Your task to perform on an android device: open app "HBO Max: Stream TV & Movies" (install if not already installed) Image 0: 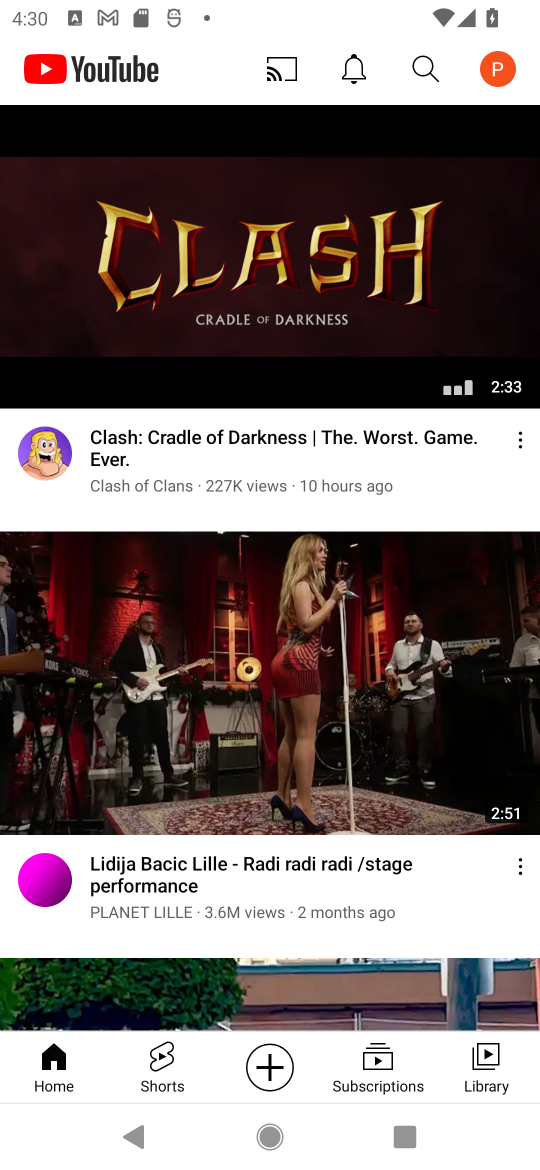
Step 0: press home button
Your task to perform on an android device: open app "HBO Max: Stream TV & Movies" (install if not already installed) Image 1: 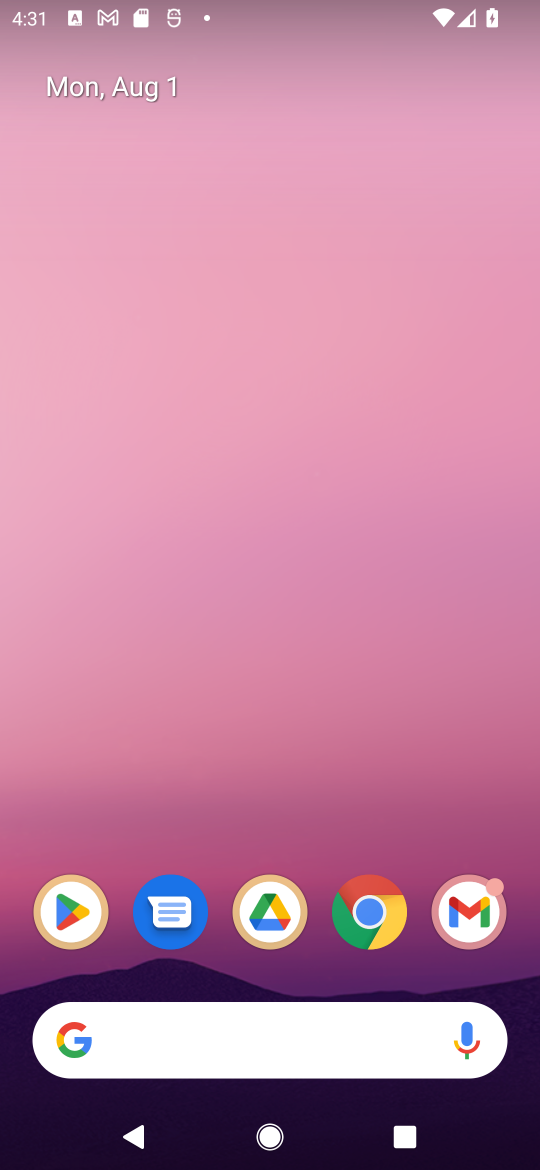
Step 1: click (79, 920)
Your task to perform on an android device: open app "HBO Max: Stream TV & Movies" (install if not already installed) Image 2: 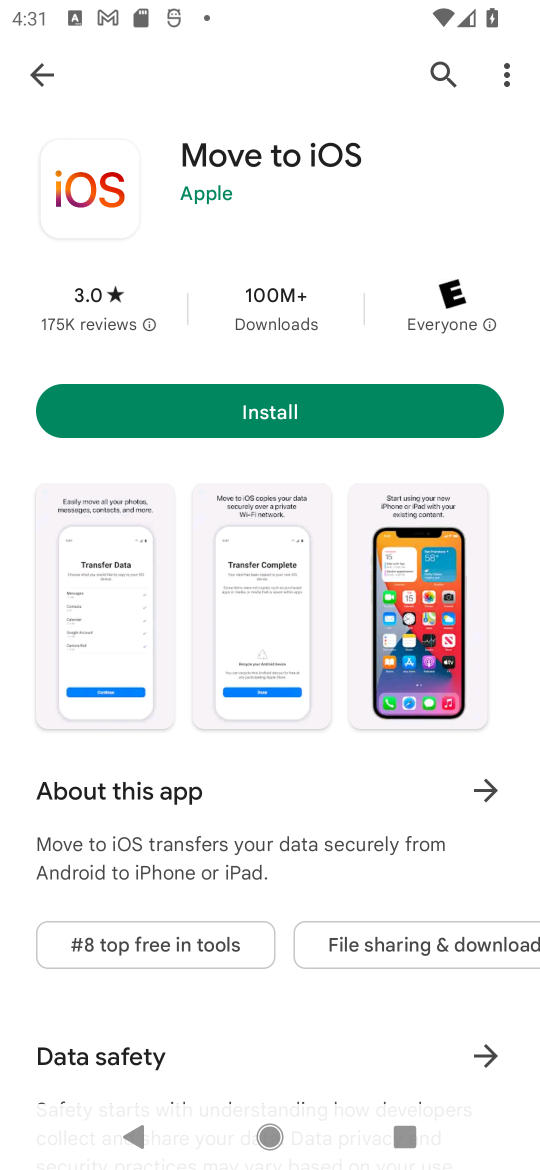
Step 2: click (429, 78)
Your task to perform on an android device: open app "HBO Max: Stream TV & Movies" (install if not already installed) Image 3: 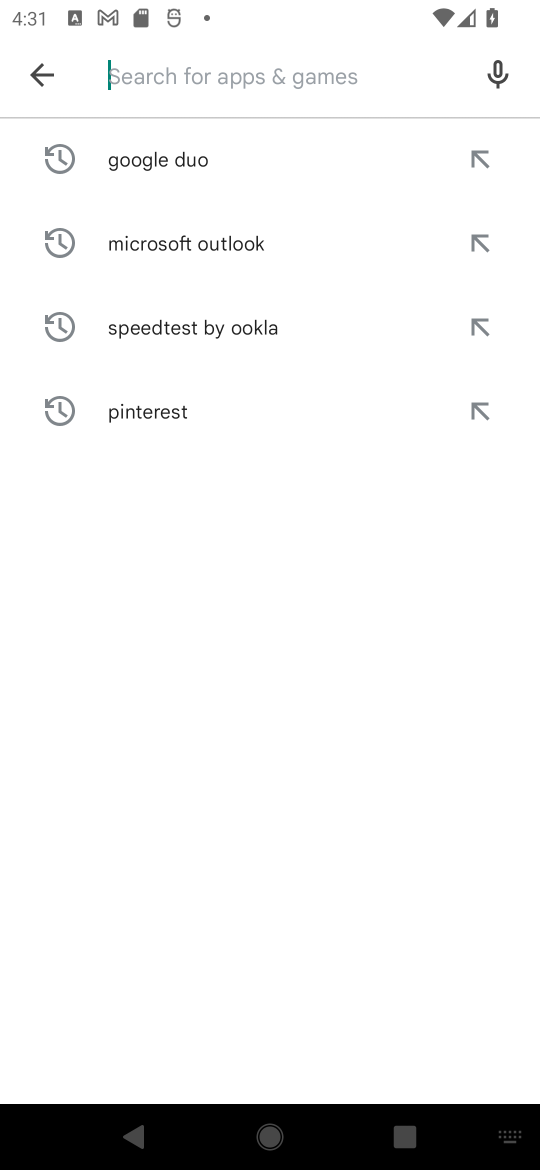
Step 3: type "HBO Max: Stream TV & Movies"
Your task to perform on an android device: open app "HBO Max: Stream TV & Movies" (install if not already installed) Image 4: 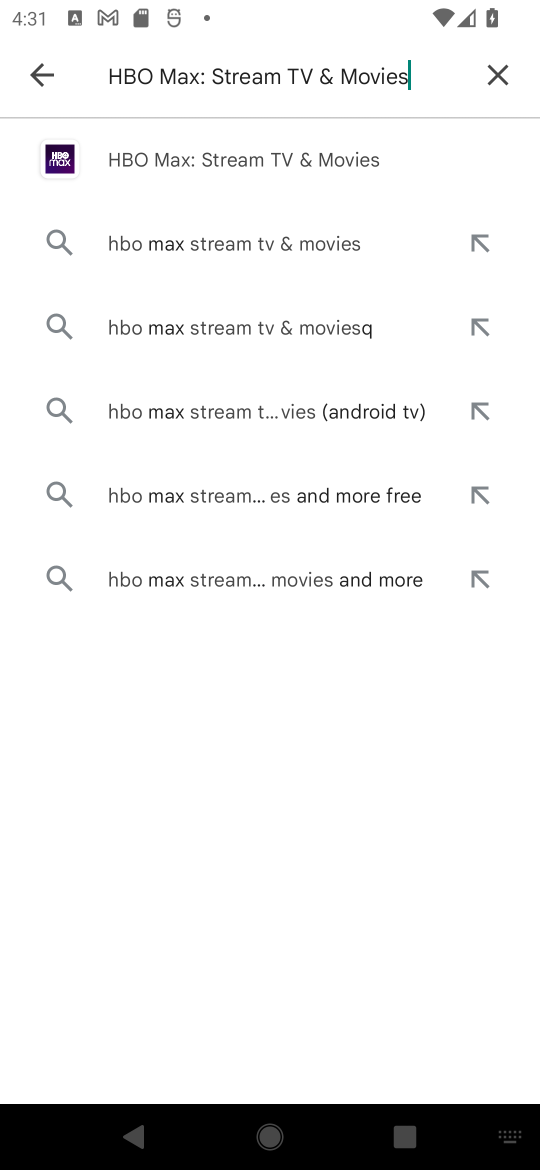
Step 4: click (178, 165)
Your task to perform on an android device: open app "HBO Max: Stream TV & Movies" (install if not already installed) Image 5: 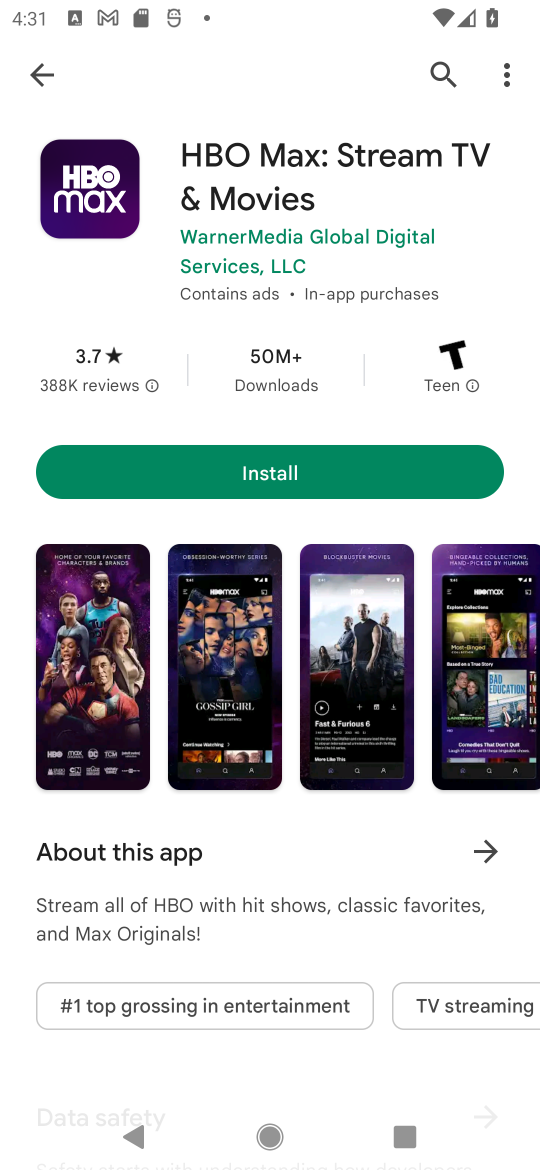
Step 5: click (247, 459)
Your task to perform on an android device: open app "HBO Max: Stream TV & Movies" (install if not already installed) Image 6: 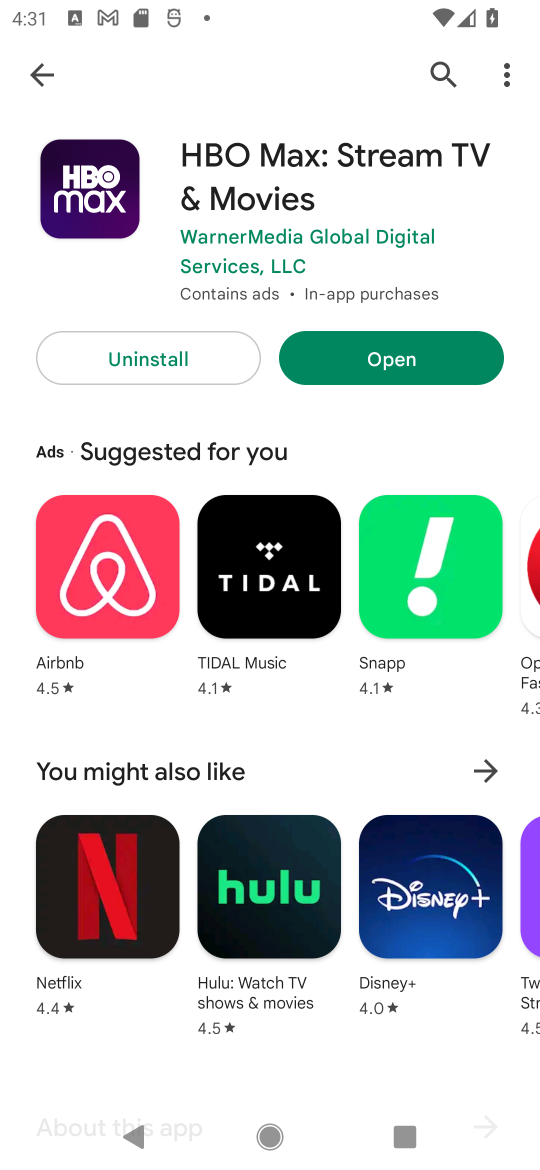
Step 6: click (340, 356)
Your task to perform on an android device: open app "HBO Max: Stream TV & Movies" (install if not already installed) Image 7: 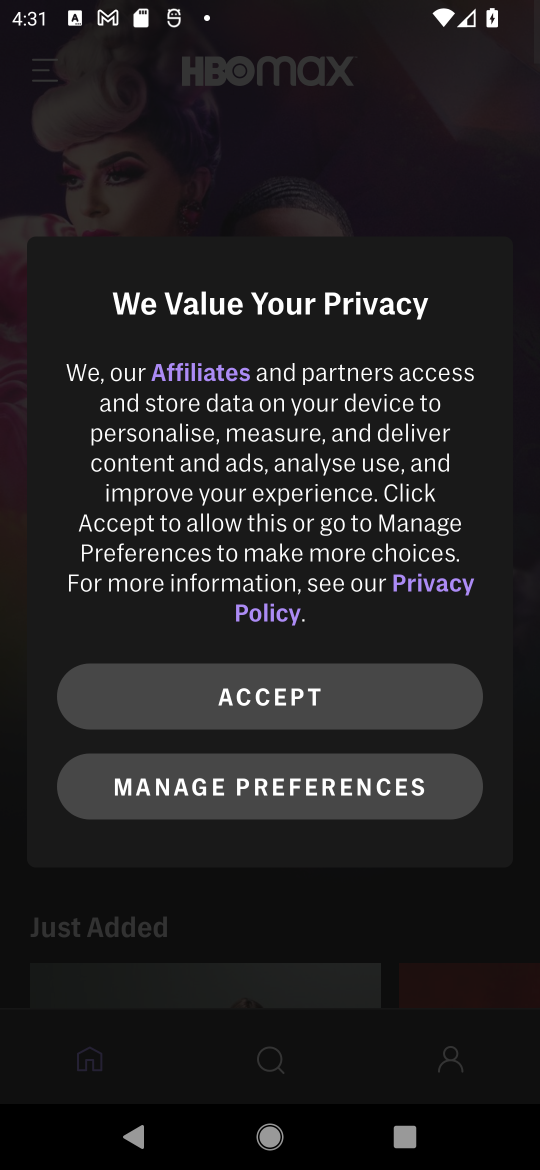
Step 7: task complete